Your task to perform on an android device: Search for Italian restaurants on Maps Image 0: 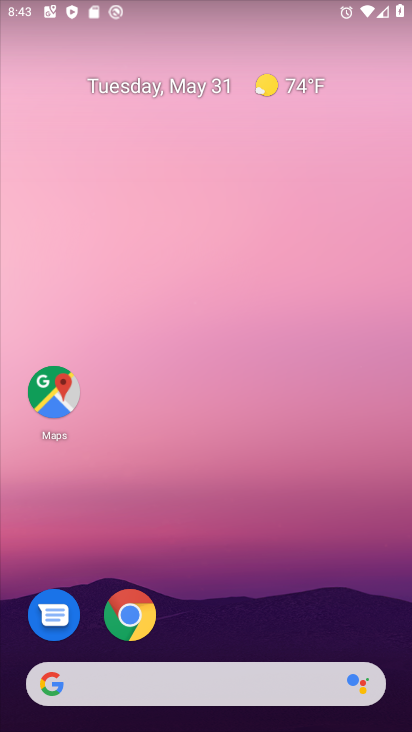
Step 0: click (53, 387)
Your task to perform on an android device: Search for Italian restaurants on Maps Image 1: 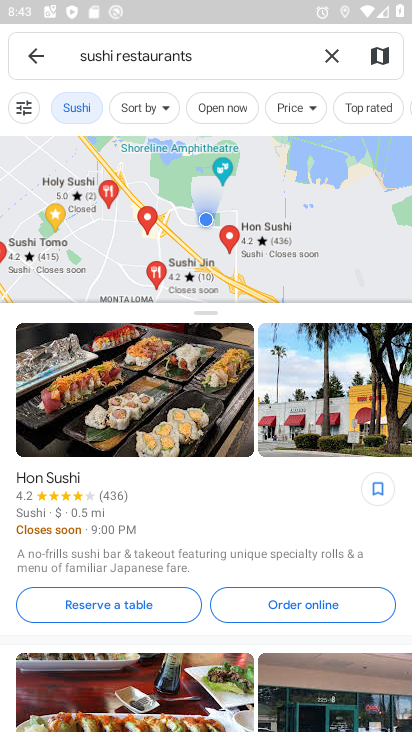
Step 1: click (327, 49)
Your task to perform on an android device: Search for Italian restaurants on Maps Image 2: 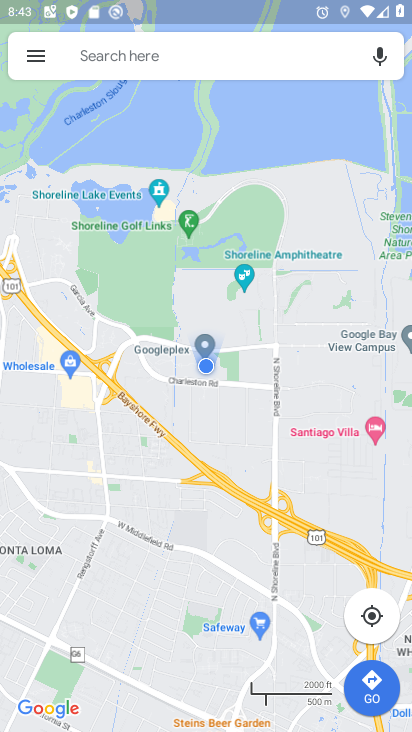
Step 2: click (214, 53)
Your task to perform on an android device: Search for Italian restaurants on Maps Image 3: 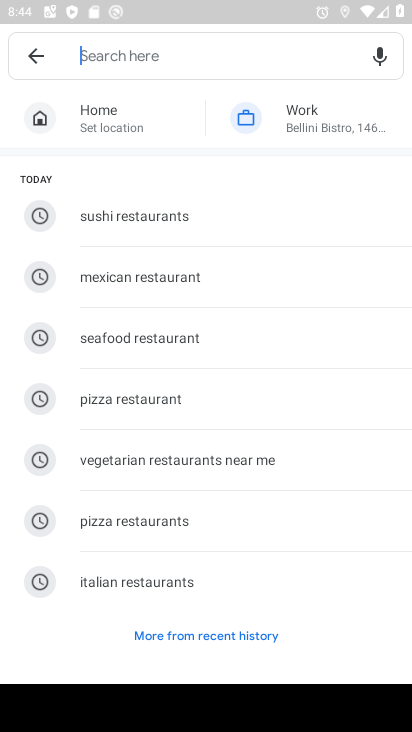
Step 3: type "Italian restaurants"
Your task to perform on an android device: Search for Italian restaurants on Maps Image 4: 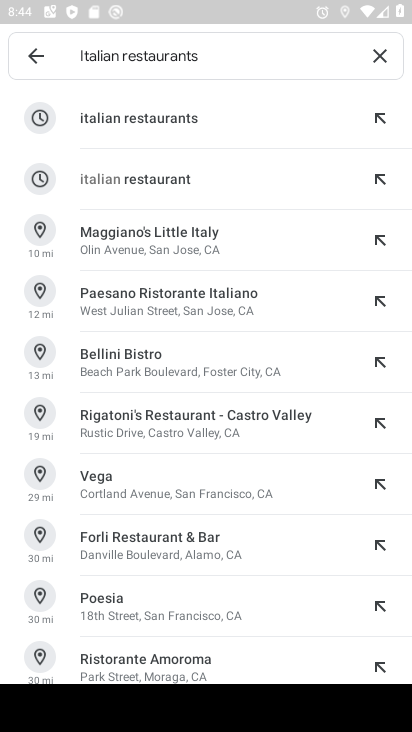
Step 4: click (184, 122)
Your task to perform on an android device: Search for Italian restaurants on Maps Image 5: 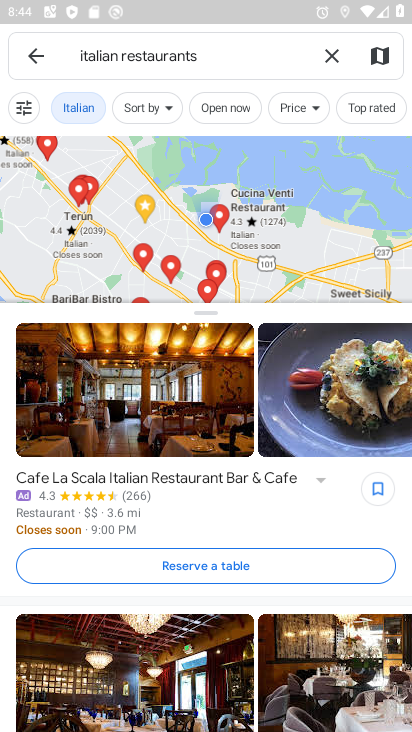
Step 5: task complete